Your task to perform on an android device: change the clock display to analog Image 0: 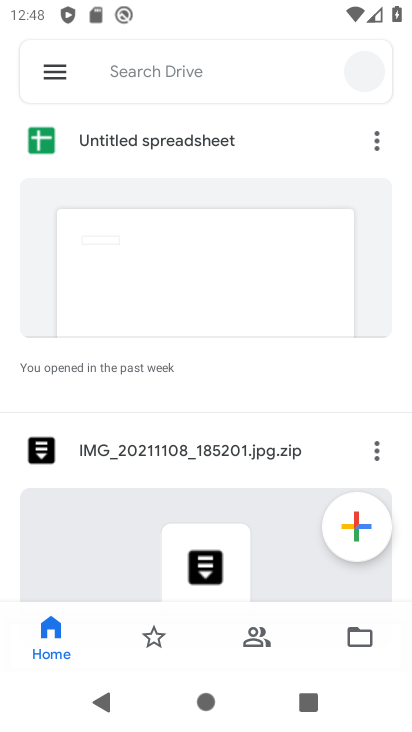
Step 0: press home button
Your task to perform on an android device: change the clock display to analog Image 1: 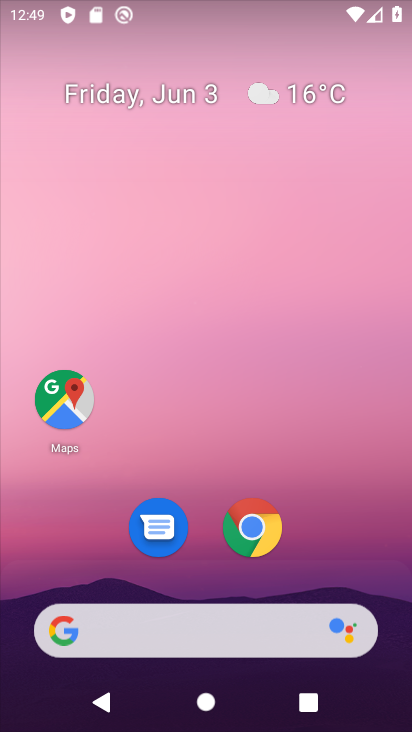
Step 1: drag from (330, 567) to (298, 18)
Your task to perform on an android device: change the clock display to analog Image 2: 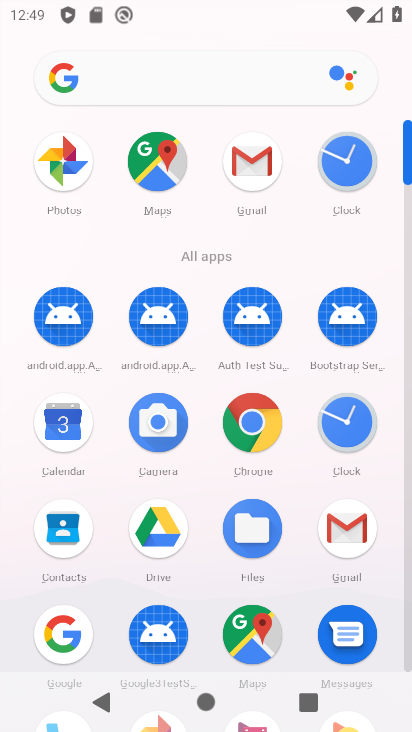
Step 2: click (346, 163)
Your task to perform on an android device: change the clock display to analog Image 3: 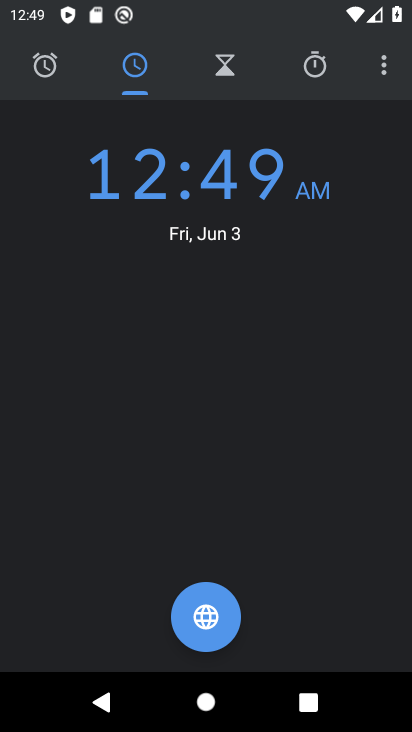
Step 3: click (375, 78)
Your task to perform on an android device: change the clock display to analog Image 4: 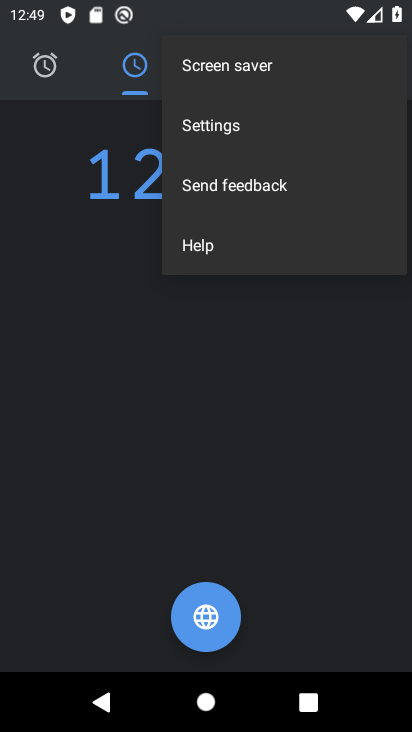
Step 4: click (219, 132)
Your task to perform on an android device: change the clock display to analog Image 5: 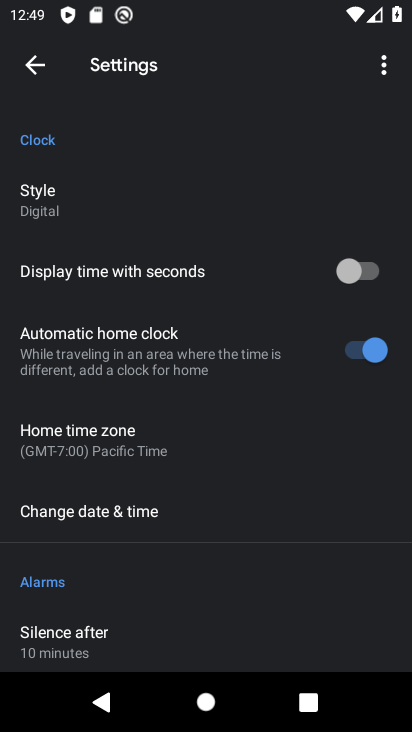
Step 5: click (92, 188)
Your task to perform on an android device: change the clock display to analog Image 6: 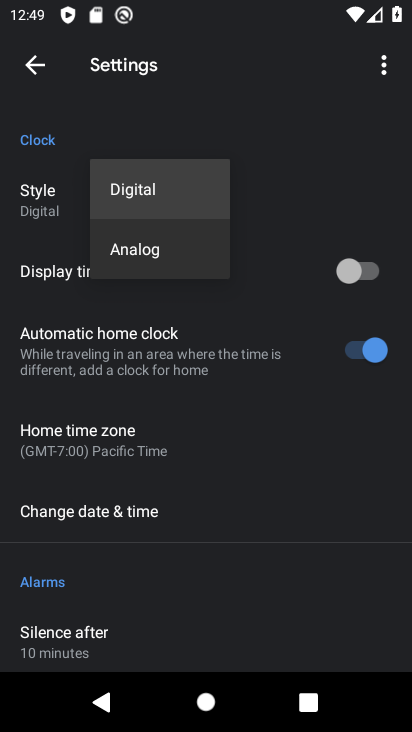
Step 6: click (126, 242)
Your task to perform on an android device: change the clock display to analog Image 7: 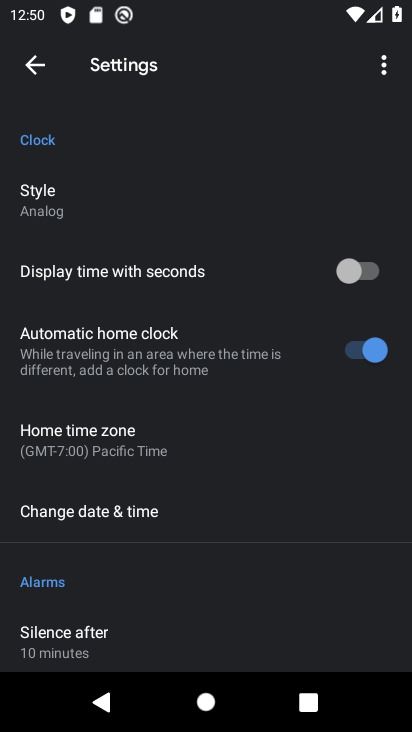
Step 7: task complete